Your task to perform on an android device: Open Amazon Image 0: 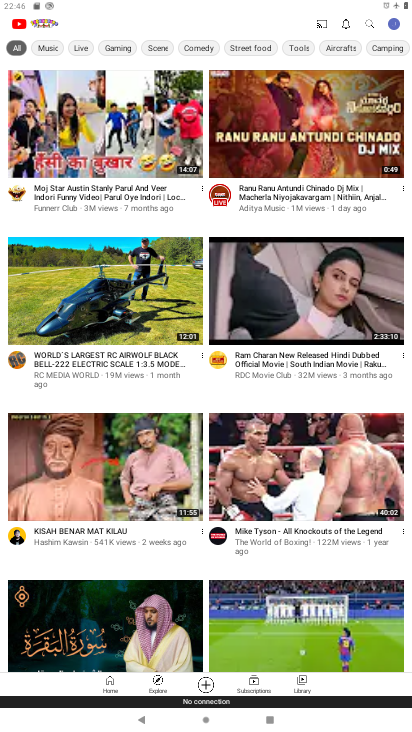
Step 0: press home button
Your task to perform on an android device: Open Amazon Image 1: 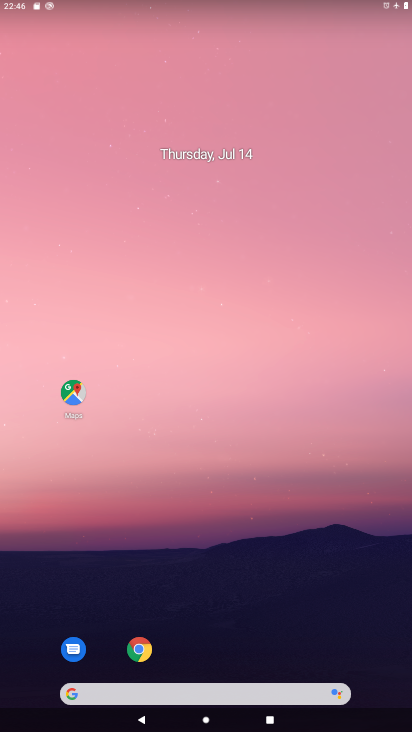
Step 1: click (149, 653)
Your task to perform on an android device: Open Amazon Image 2: 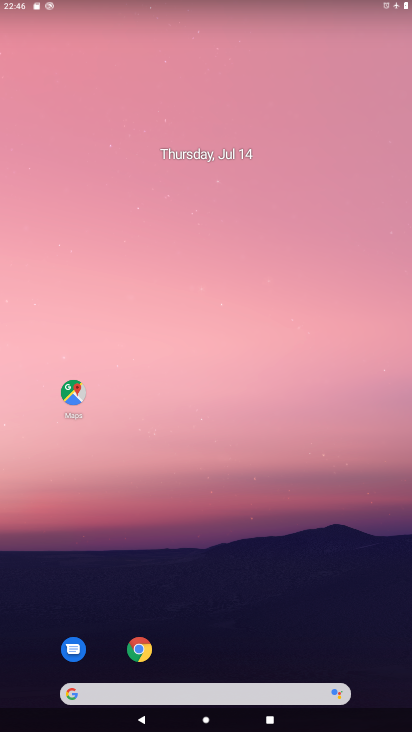
Step 2: click (149, 653)
Your task to perform on an android device: Open Amazon Image 3: 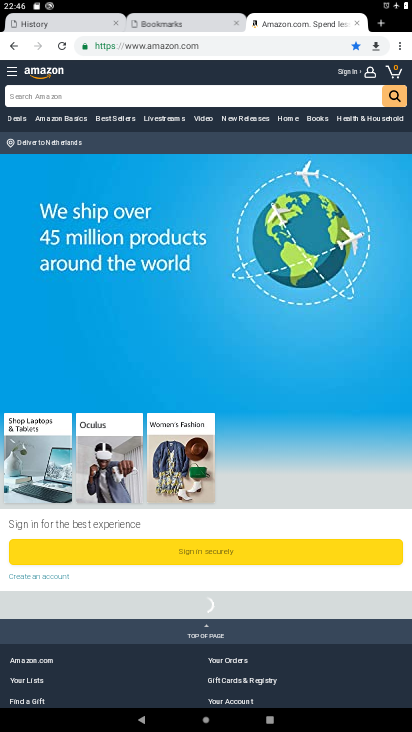
Step 3: task complete